Your task to perform on an android device: Open accessibility settings Image 0: 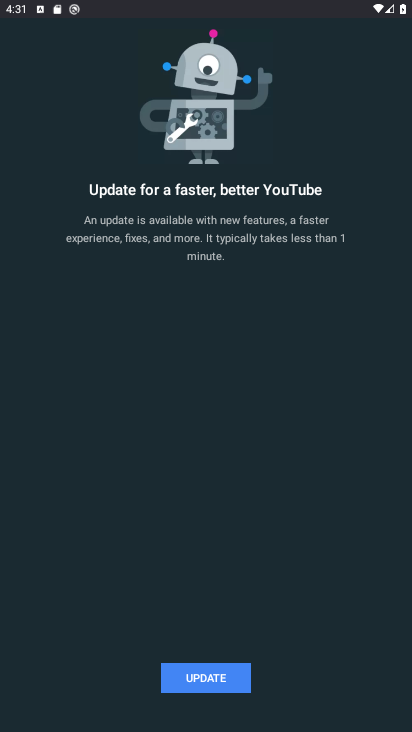
Step 0: task impossible